Your task to perform on an android device: open app "Microsoft Excel" Image 0: 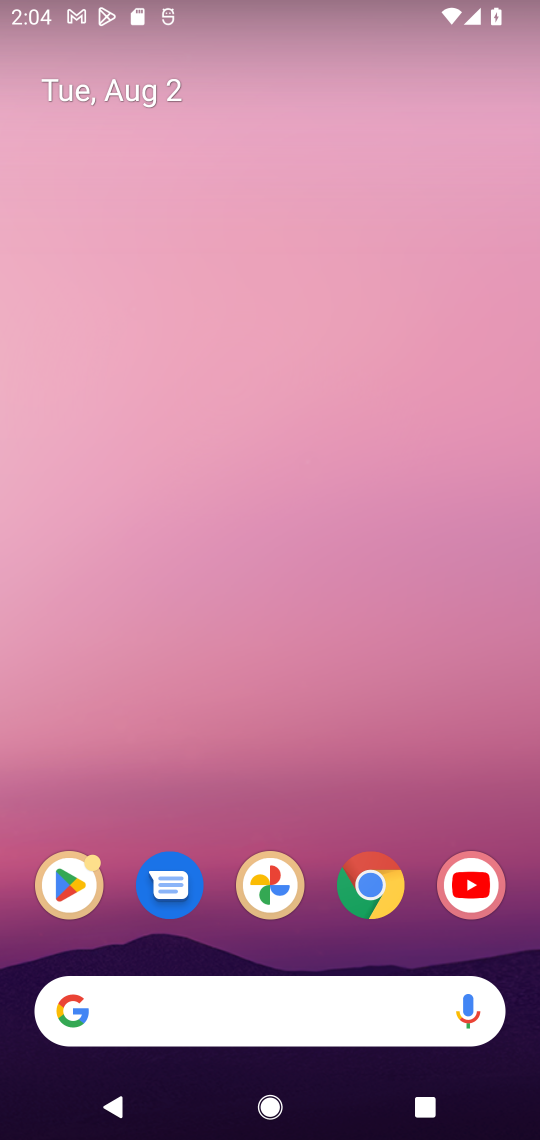
Step 0: click (88, 902)
Your task to perform on an android device: open app "Microsoft Excel" Image 1: 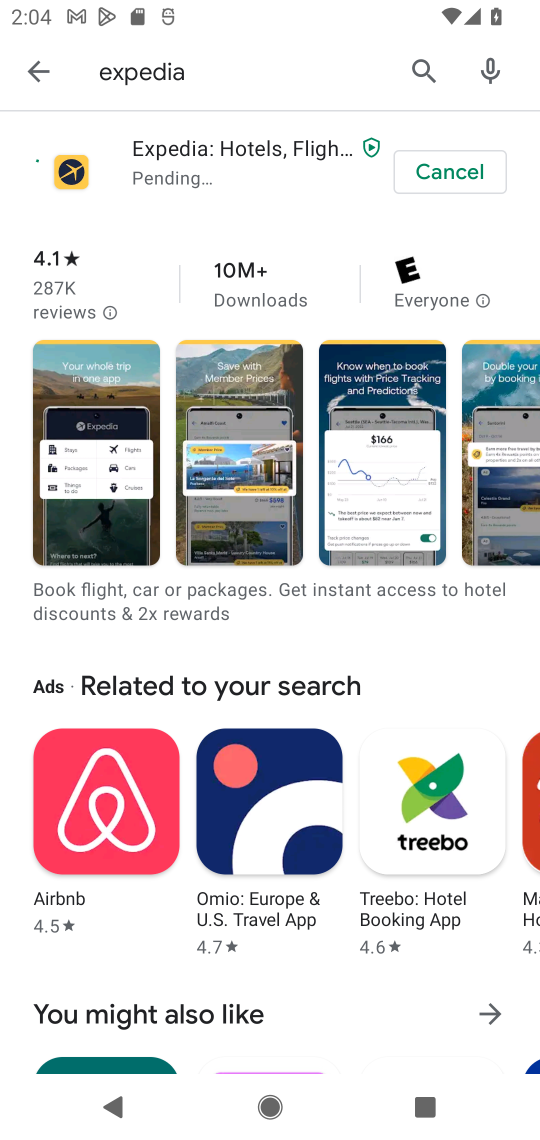
Step 1: click (399, 81)
Your task to perform on an android device: open app "Microsoft Excel" Image 2: 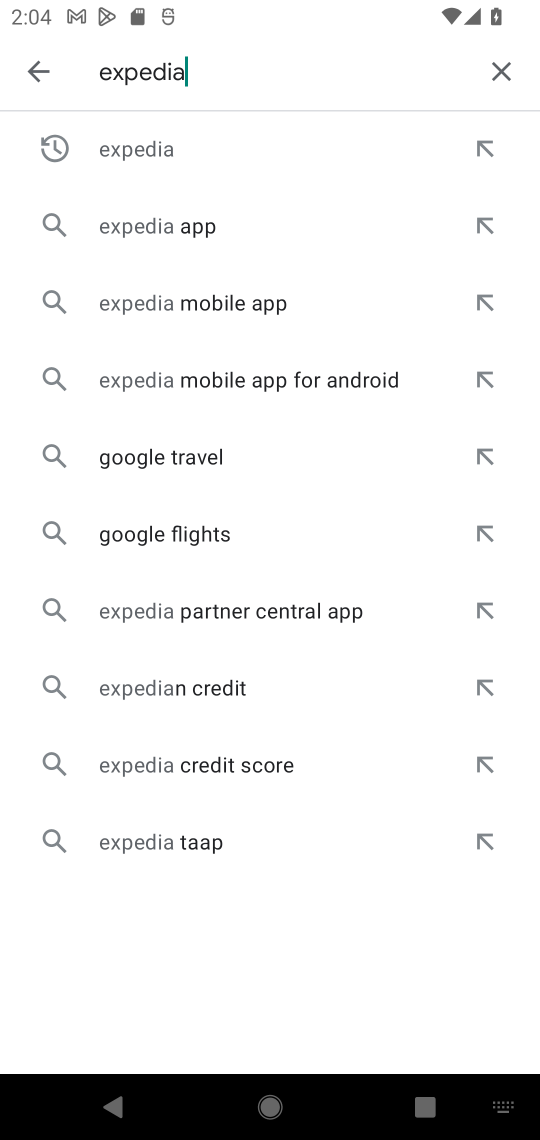
Step 2: click (492, 72)
Your task to perform on an android device: open app "Microsoft Excel" Image 3: 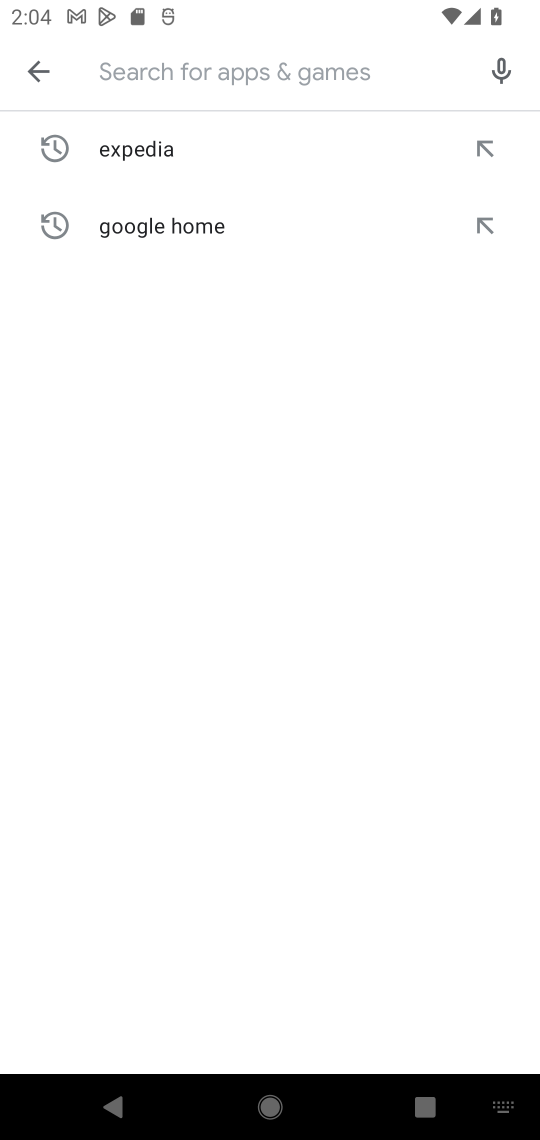
Step 3: type "excwel"
Your task to perform on an android device: open app "Microsoft Excel" Image 4: 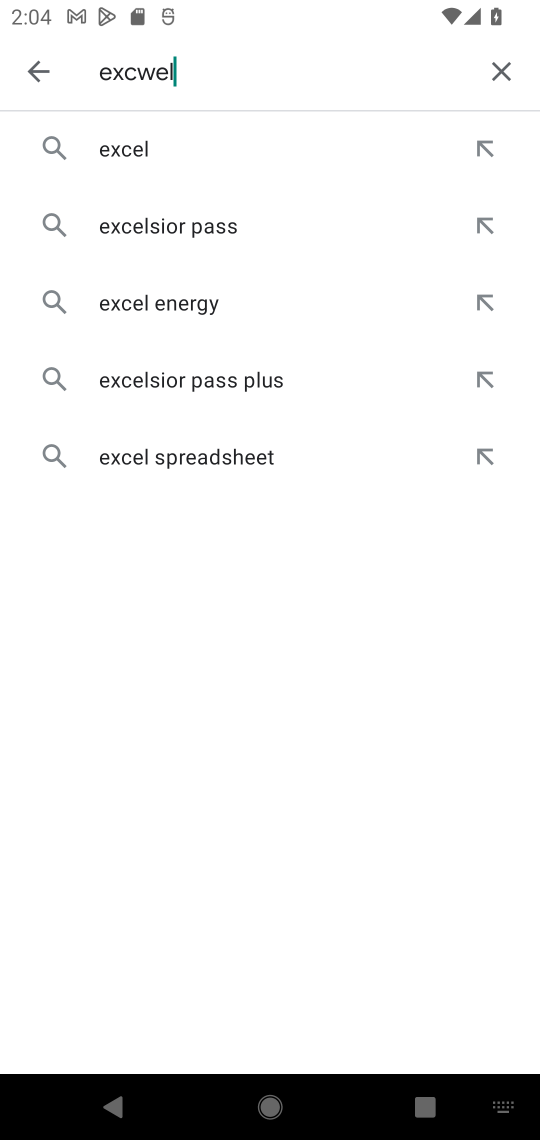
Step 4: click (232, 157)
Your task to perform on an android device: open app "Microsoft Excel" Image 5: 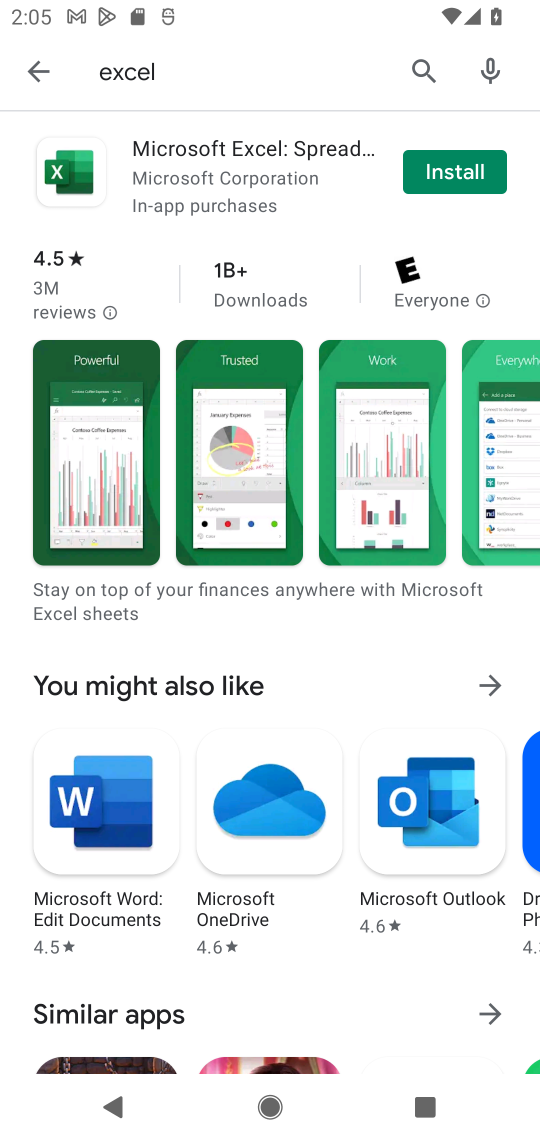
Step 5: click (427, 171)
Your task to perform on an android device: open app "Microsoft Excel" Image 6: 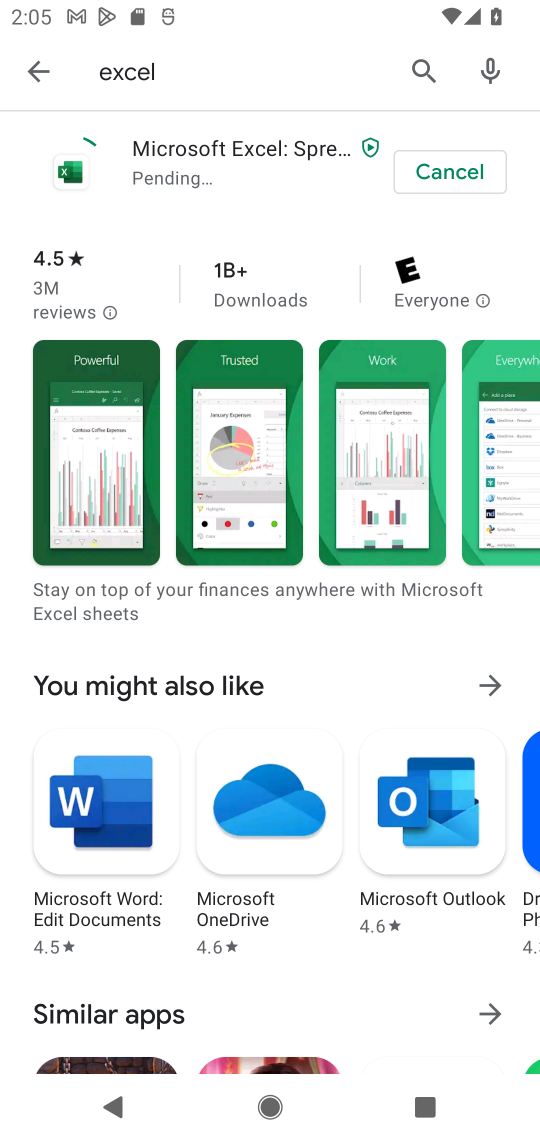
Step 6: task complete